Your task to perform on an android device: Go to accessibility settings Image 0: 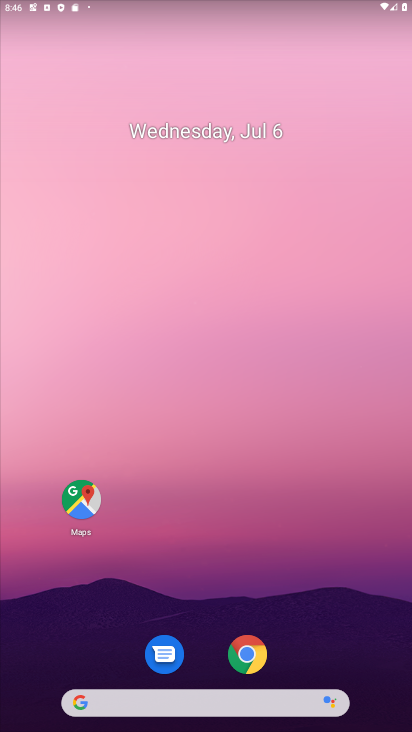
Step 0: click (227, 461)
Your task to perform on an android device: Go to accessibility settings Image 1: 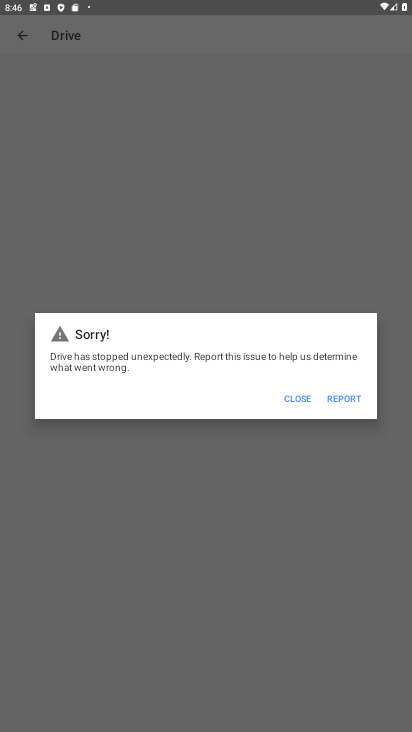
Step 1: drag from (205, 8) to (139, 550)
Your task to perform on an android device: Go to accessibility settings Image 2: 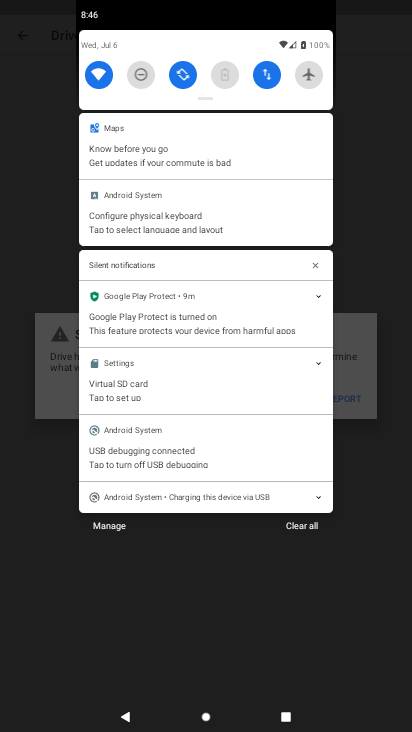
Step 2: drag from (190, 55) to (222, 530)
Your task to perform on an android device: Go to accessibility settings Image 3: 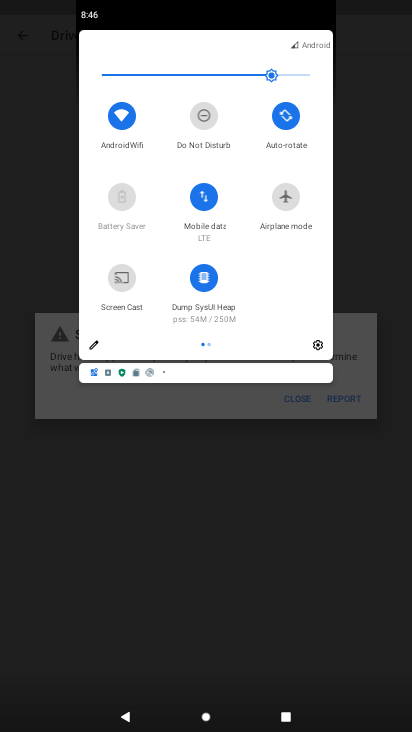
Step 3: click (320, 347)
Your task to perform on an android device: Go to accessibility settings Image 4: 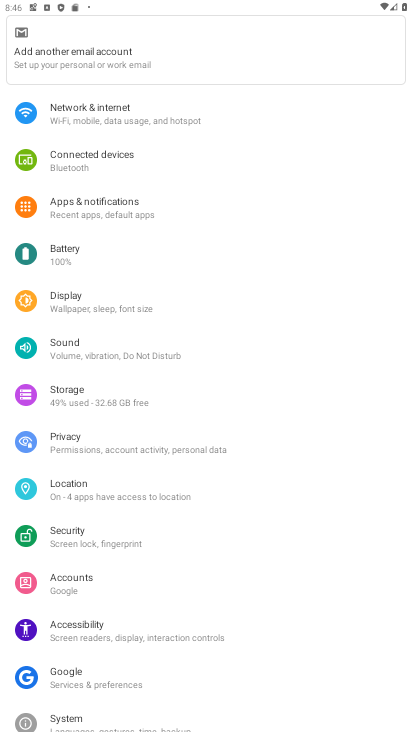
Step 4: click (107, 628)
Your task to perform on an android device: Go to accessibility settings Image 5: 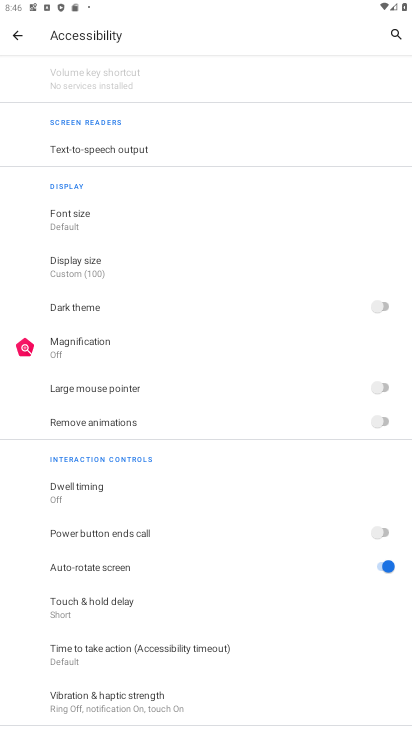
Step 5: task complete